Your task to perform on an android device: Check the weather Image 0: 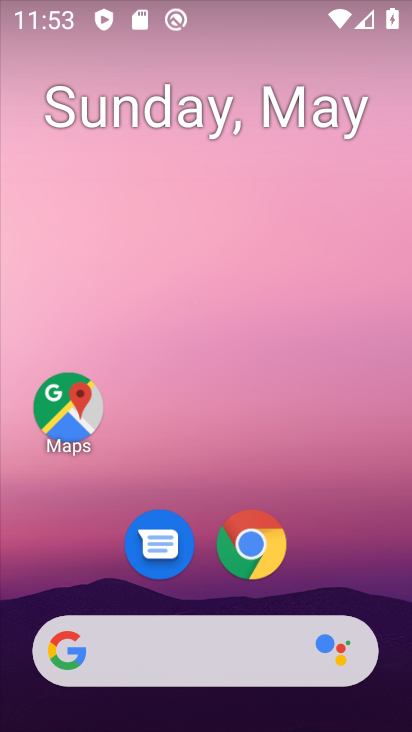
Step 0: drag from (309, 596) to (362, 124)
Your task to perform on an android device: Check the weather Image 1: 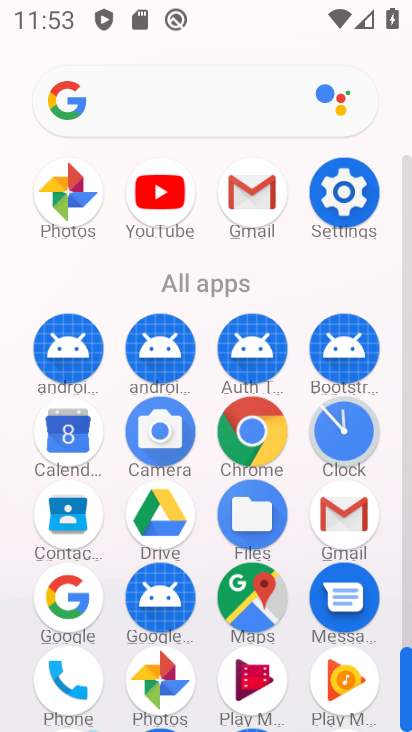
Step 1: click (256, 429)
Your task to perform on an android device: Check the weather Image 2: 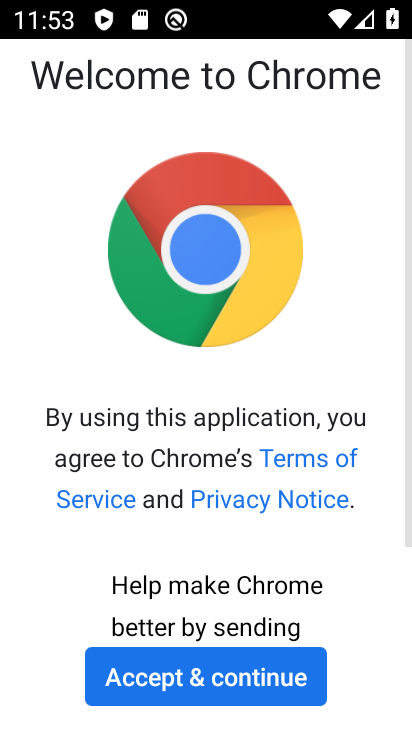
Step 2: click (244, 686)
Your task to perform on an android device: Check the weather Image 3: 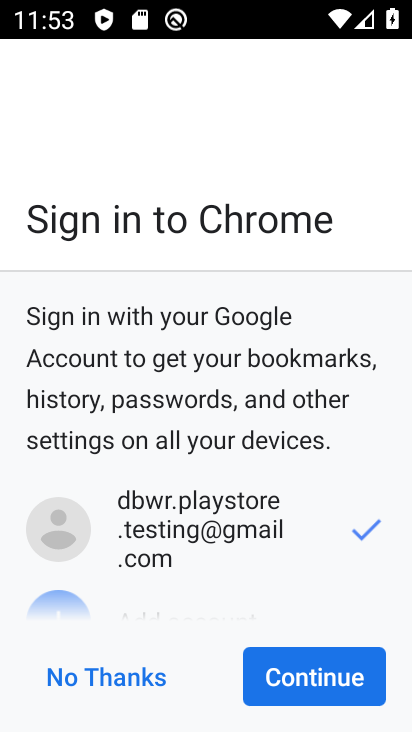
Step 3: click (151, 685)
Your task to perform on an android device: Check the weather Image 4: 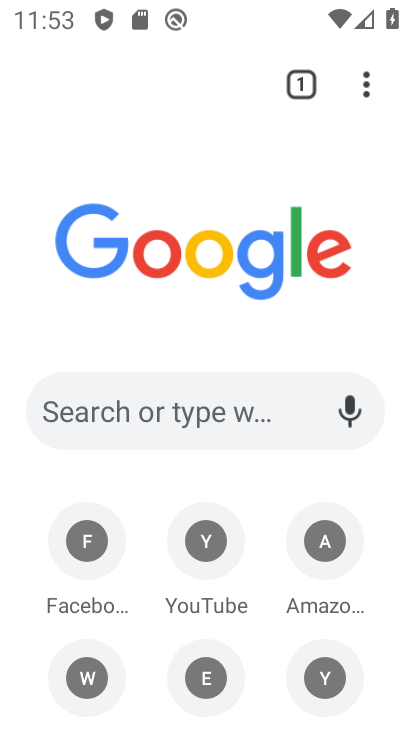
Step 4: drag from (231, 93) to (269, 93)
Your task to perform on an android device: Check the weather Image 5: 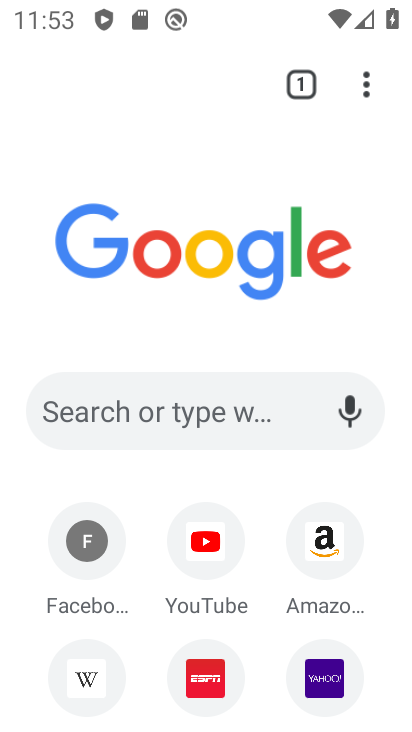
Step 5: click (249, 433)
Your task to perform on an android device: Check the weather Image 6: 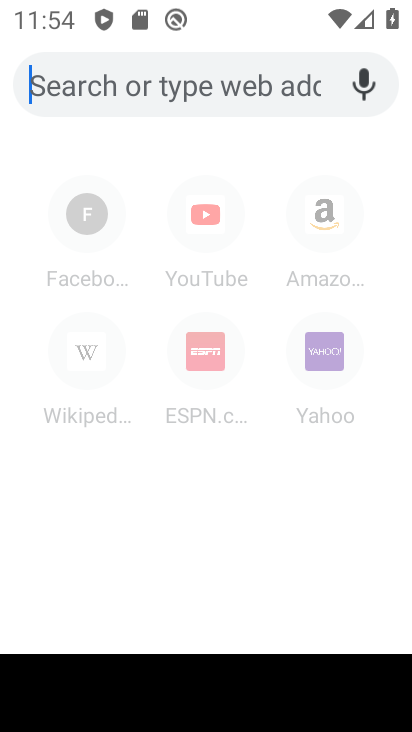
Step 6: type "weather"
Your task to perform on an android device: Check the weather Image 7: 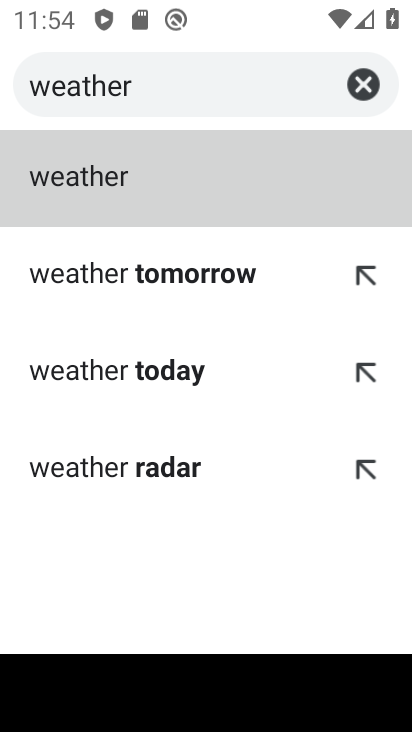
Step 7: click (155, 190)
Your task to perform on an android device: Check the weather Image 8: 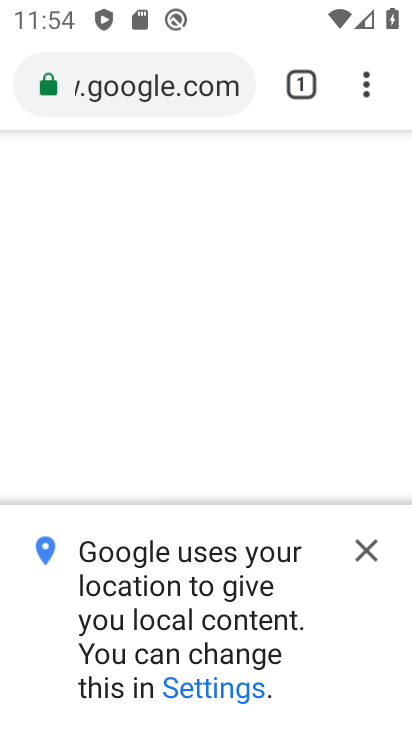
Step 8: click (364, 544)
Your task to perform on an android device: Check the weather Image 9: 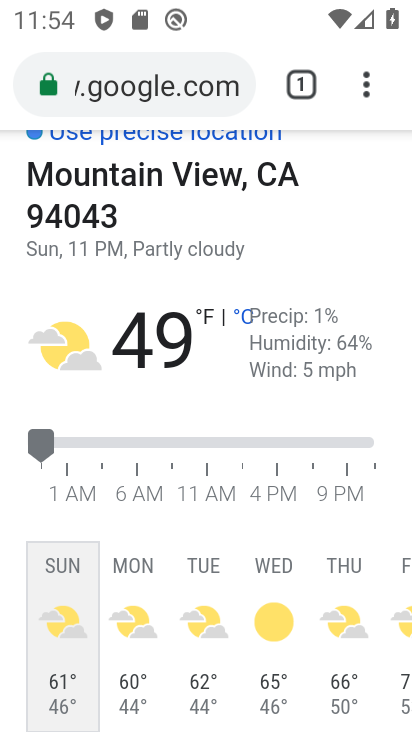
Step 9: task complete